Your task to perform on an android device: add a contact in the contacts app Image 0: 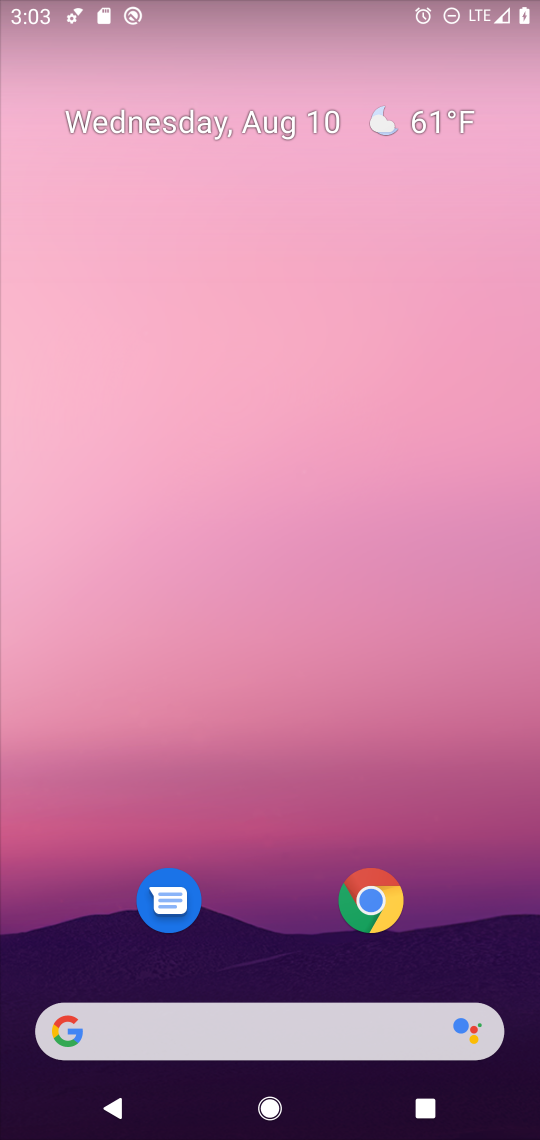
Step 0: drag from (295, 883) to (328, 0)
Your task to perform on an android device: add a contact in the contacts app Image 1: 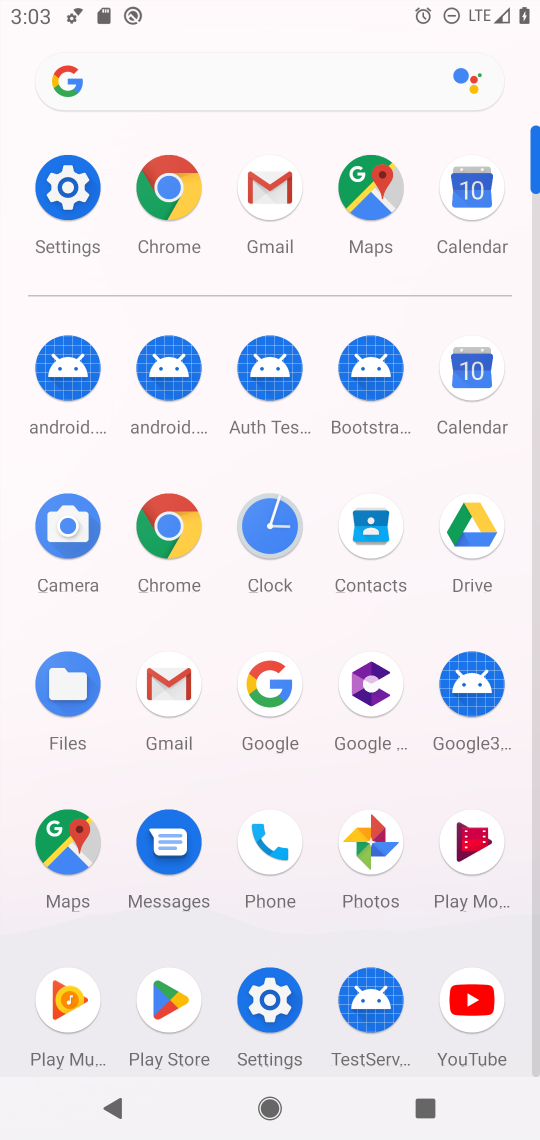
Step 1: click (380, 530)
Your task to perform on an android device: add a contact in the contacts app Image 2: 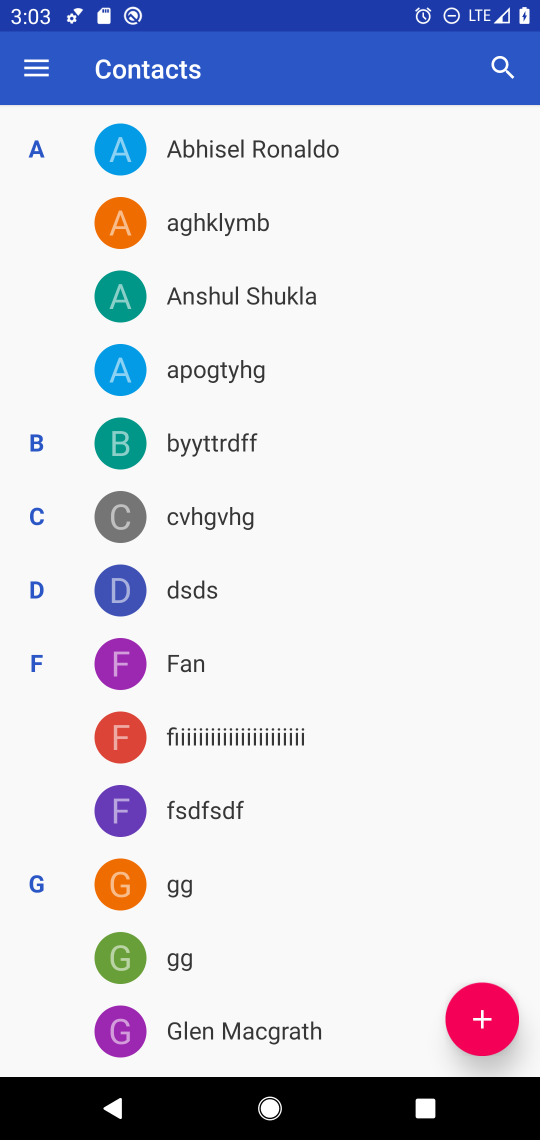
Step 2: click (476, 1012)
Your task to perform on an android device: add a contact in the contacts app Image 3: 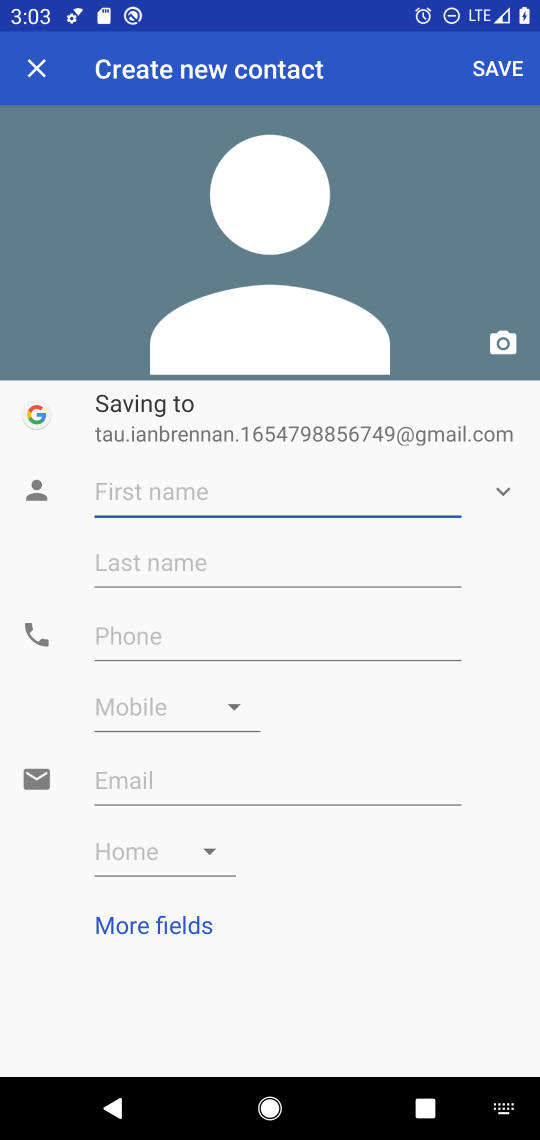
Step 3: type "Abba"
Your task to perform on an android device: add a contact in the contacts app Image 4: 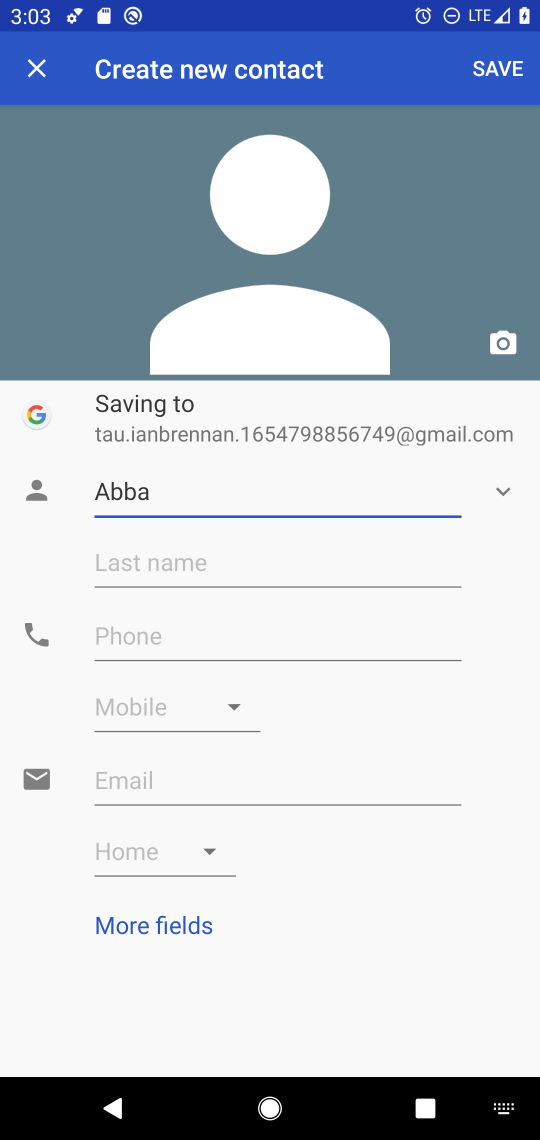
Step 4: click (349, 638)
Your task to perform on an android device: add a contact in the contacts app Image 5: 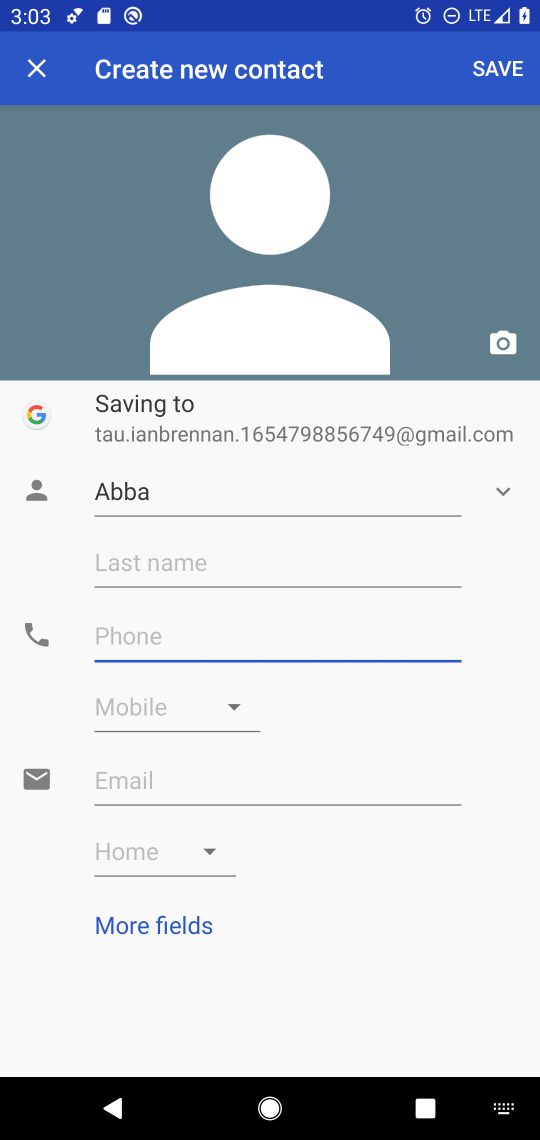
Step 5: type "+929999768768"
Your task to perform on an android device: add a contact in the contacts app Image 6: 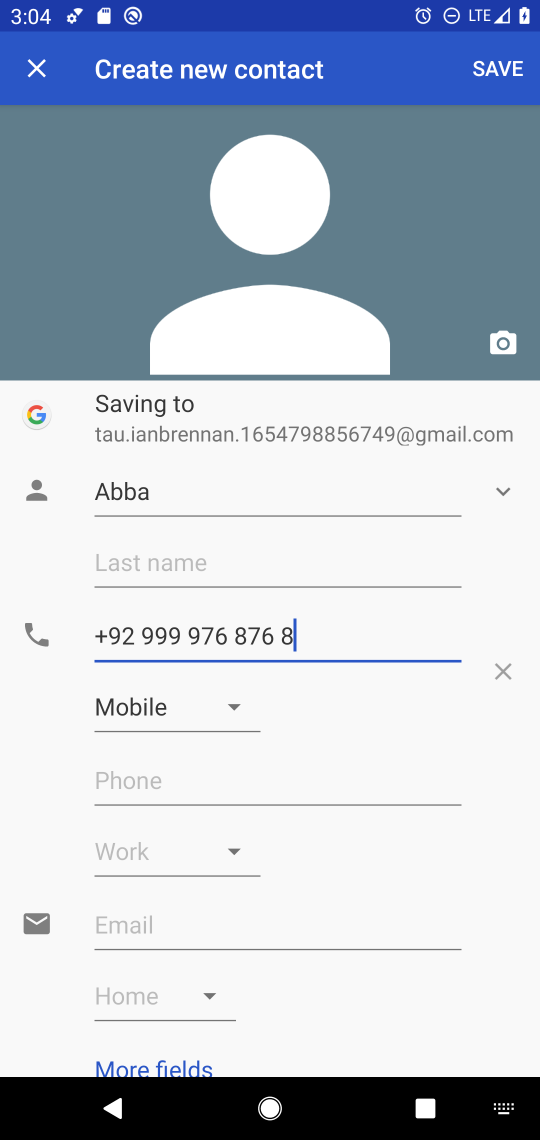
Step 6: click (489, 80)
Your task to perform on an android device: add a contact in the contacts app Image 7: 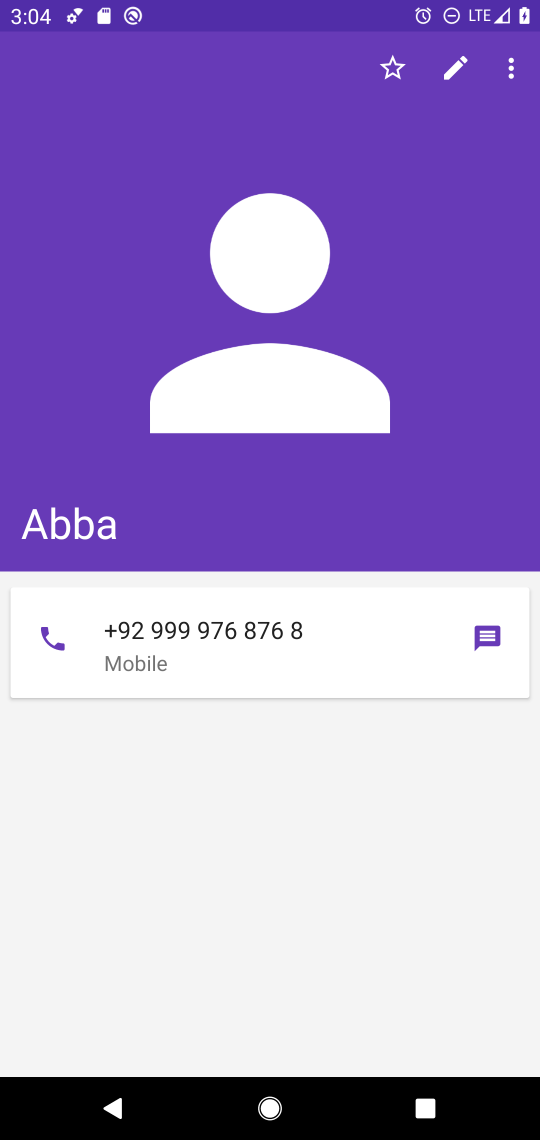
Step 7: task complete